Your task to perform on an android device: star an email in the gmail app Image 0: 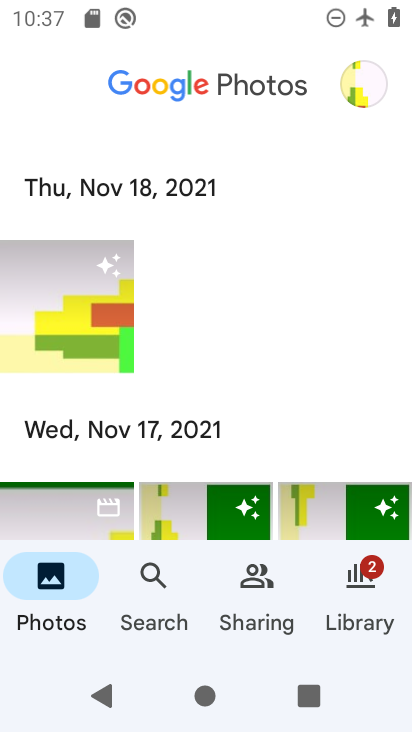
Step 0: press home button
Your task to perform on an android device: star an email in the gmail app Image 1: 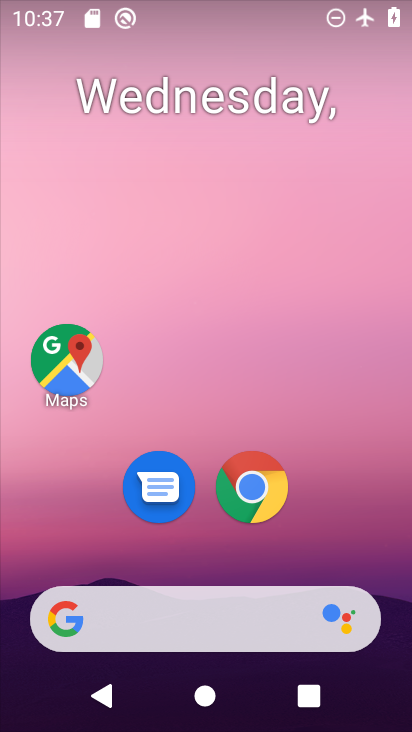
Step 1: drag from (328, 509) to (159, 79)
Your task to perform on an android device: star an email in the gmail app Image 2: 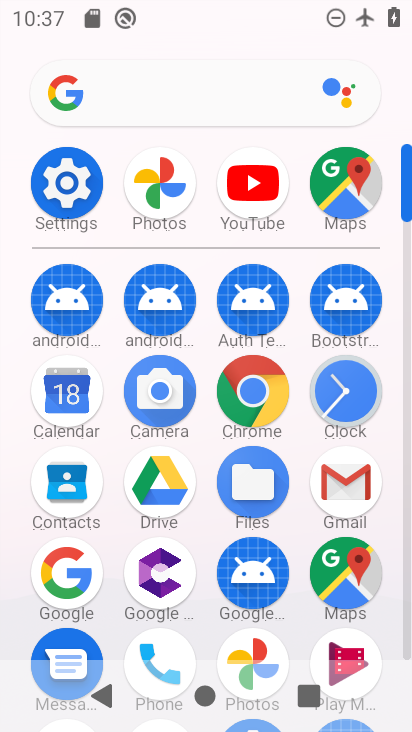
Step 2: click (342, 484)
Your task to perform on an android device: star an email in the gmail app Image 3: 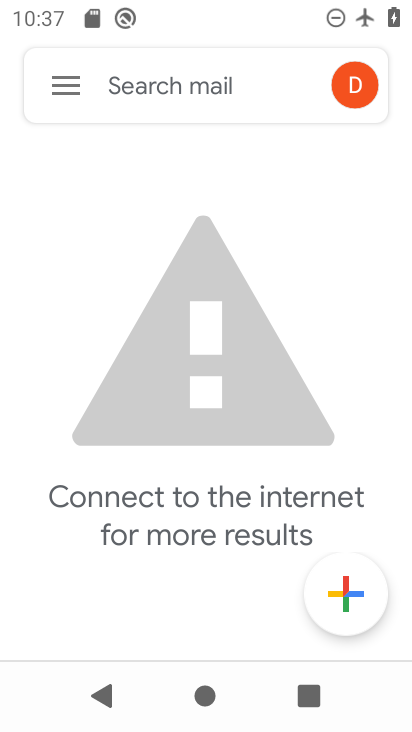
Step 3: click (66, 76)
Your task to perform on an android device: star an email in the gmail app Image 4: 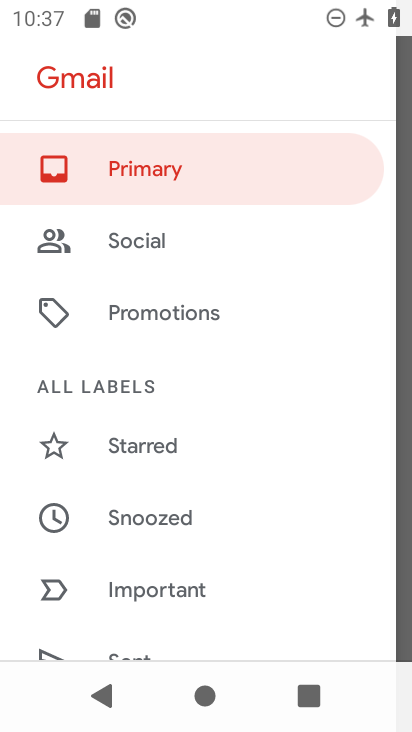
Step 4: drag from (260, 498) to (196, 216)
Your task to perform on an android device: star an email in the gmail app Image 5: 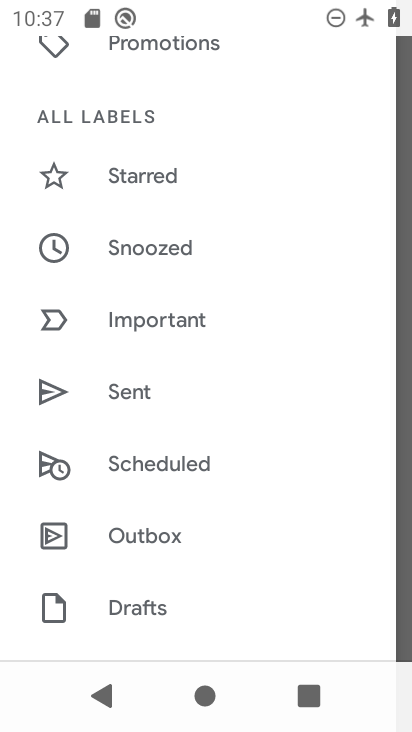
Step 5: drag from (197, 516) to (157, 207)
Your task to perform on an android device: star an email in the gmail app Image 6: 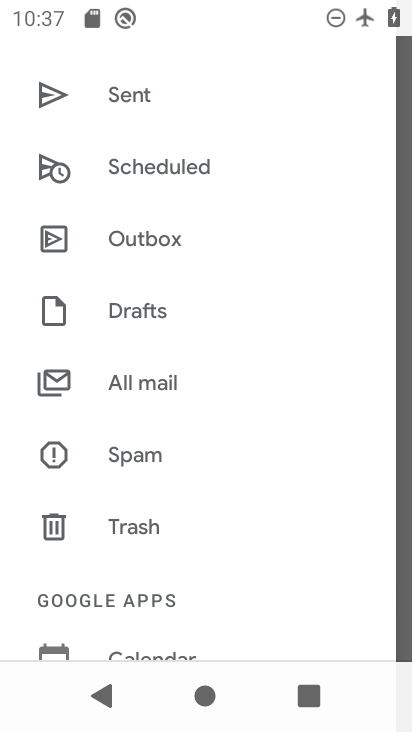
Step 6: click (142, 373)
Your task to perform on an android device: star an email in the gmail app Image 7: 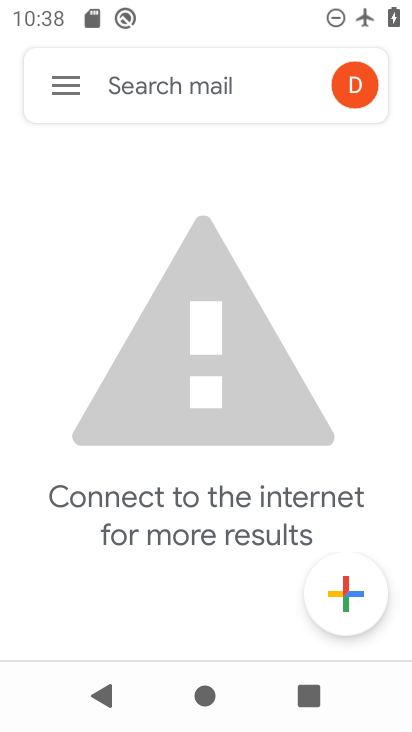
Step 7: task complete